Your task to perform on an android device: change text size in settings app Image 0: 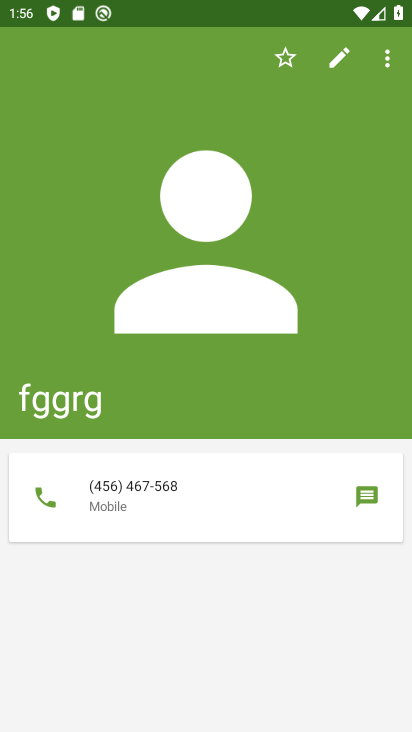
Step 0: press home button
Your task to perform on an android device: change text size in settings app Image 1: 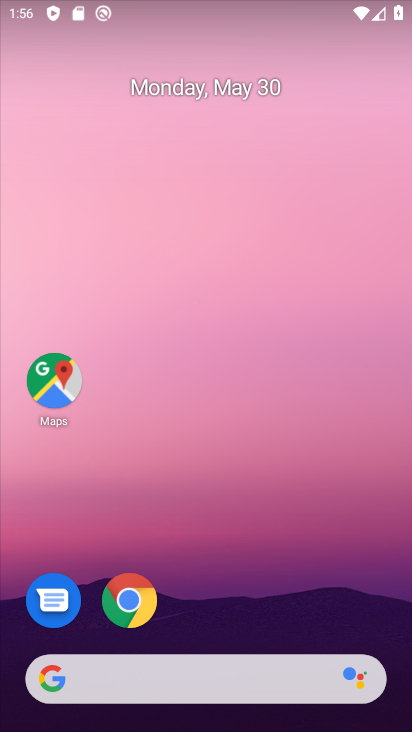
Step 1: drag from (250, 595) to (267, 76)
Your task to perform on an android device: change text size in settings app Image 2: 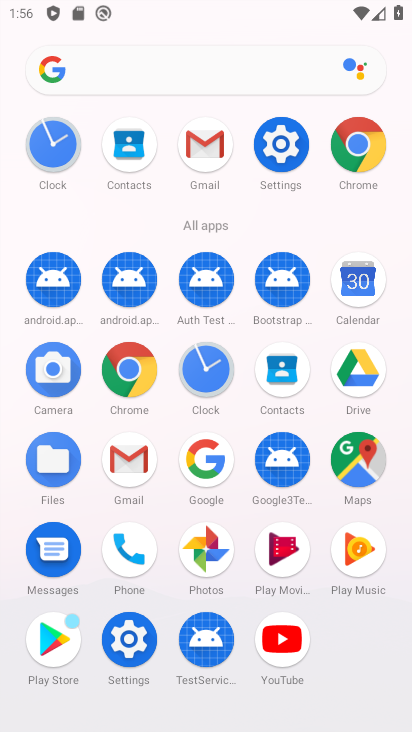
Step 2: click (289, 147)
Your task to perform on an android device: change text size in settings app Image 3: 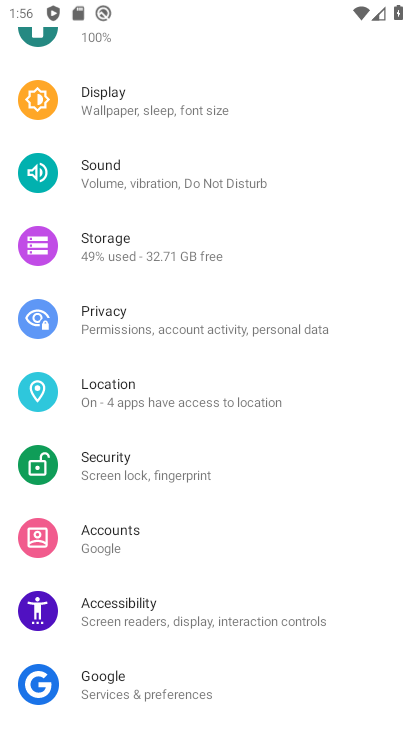
Step 3: click (176, 111)
Your task to perform on an android device: change text size in settings app Image 4: 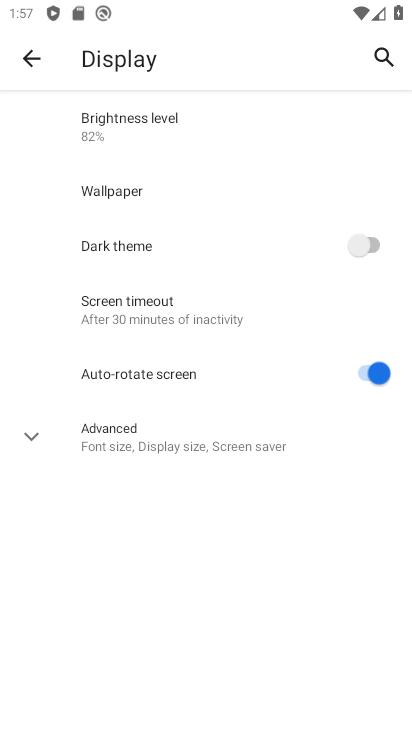
Step 4: click (124, 432)
Your task to perform on an android device: change text size in settings app Image 5: 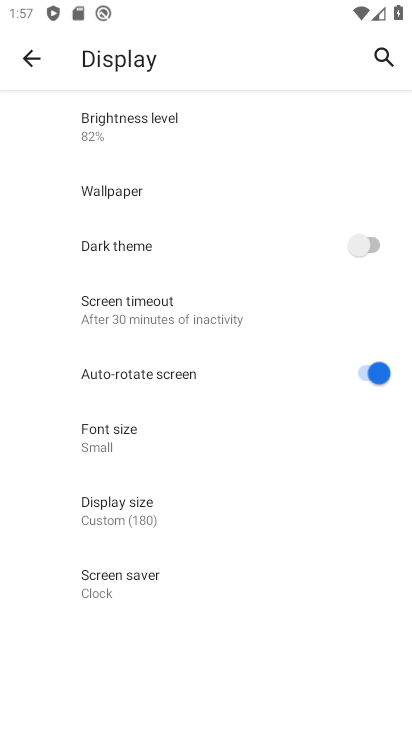
Step 5: click (147, 439)
Your task to perform on an android device: change text size in settings app Image 6: 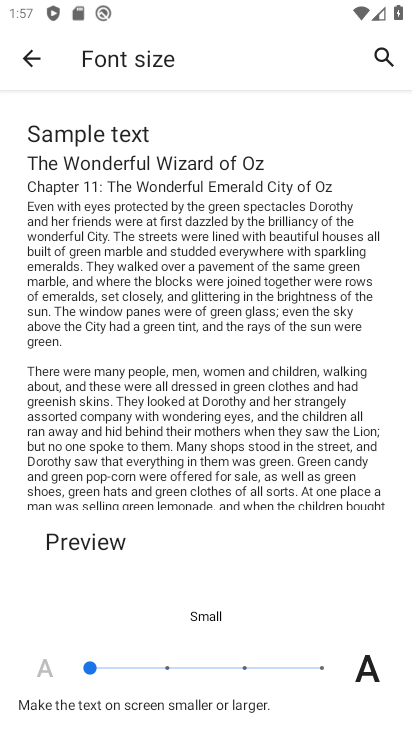
Step 6: click (167, 666)
Your task to perform on an android device: change text size in settings app Image 7: 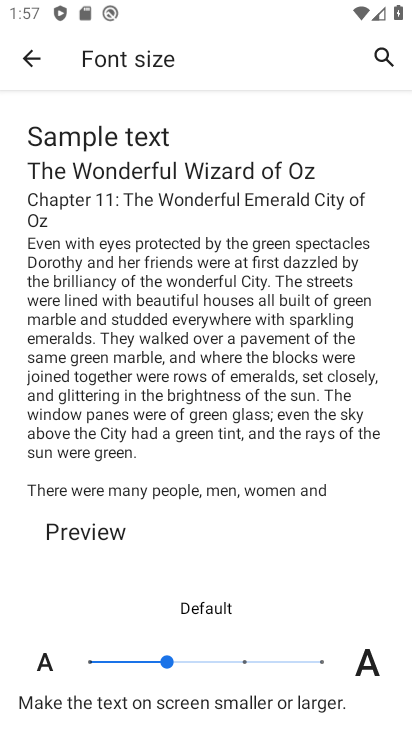
Step 7: task complete